Your task to perform on an android device: Open Maps and search for coffee Image 0: 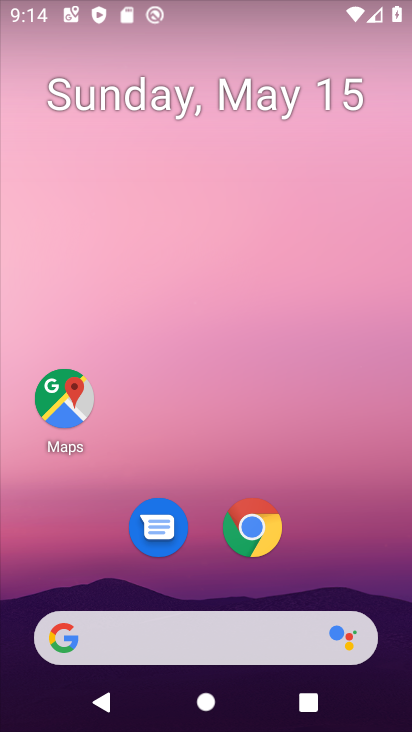
Step 0: click (66, 411)
Your task to perform on an android device: Open Maps and search for coffee Image 1: 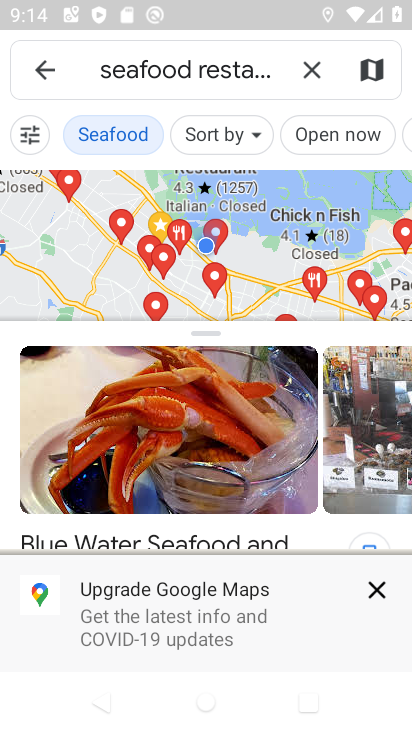
Step 1: click (312, 73)
Your task to perform on an android device: Open Maps and search for coffee Image 2: 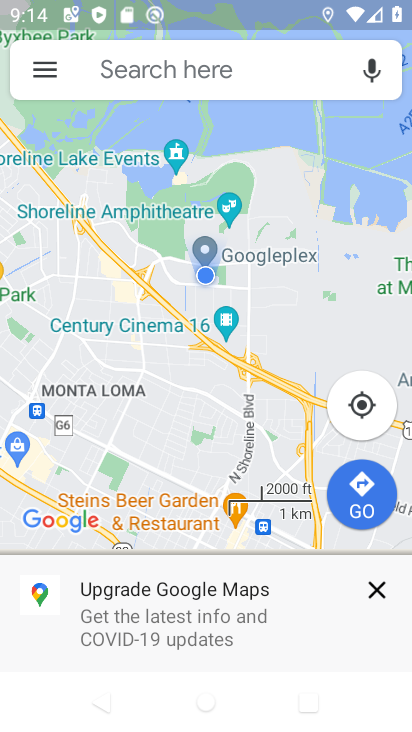
Step 2: click (254, 77)
Your task to perform on an android device: Open Maps and search for coffee Image 3: 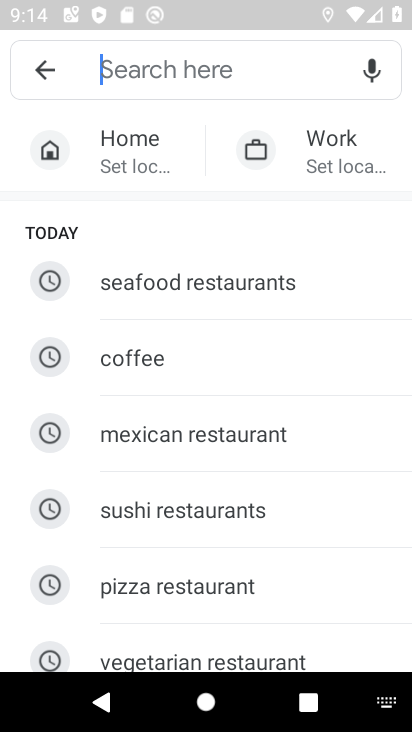
Step 3: click (144, 366)
Your task to perform on an android device: Open Maps and search for coffee Image 4: 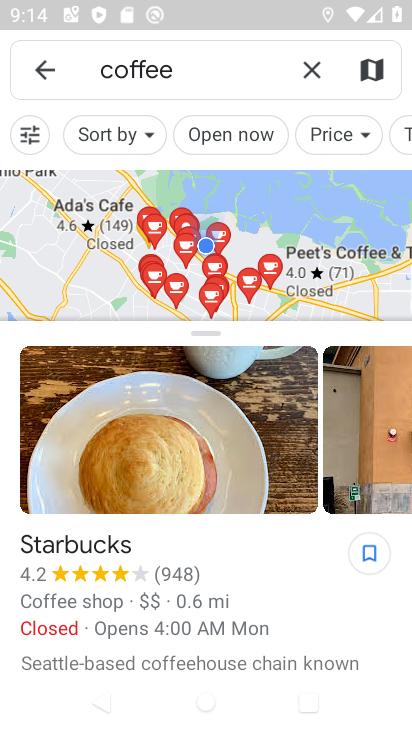
Step 4: task complete